Your task to perform on an android device: Go to Reddit.com Image 0: 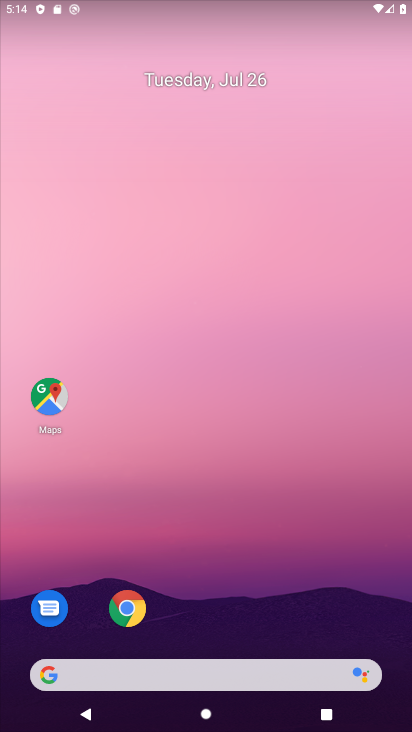
Step 0: press home button
Your task to perform on an android device: Go to Reddit.com Image 1: 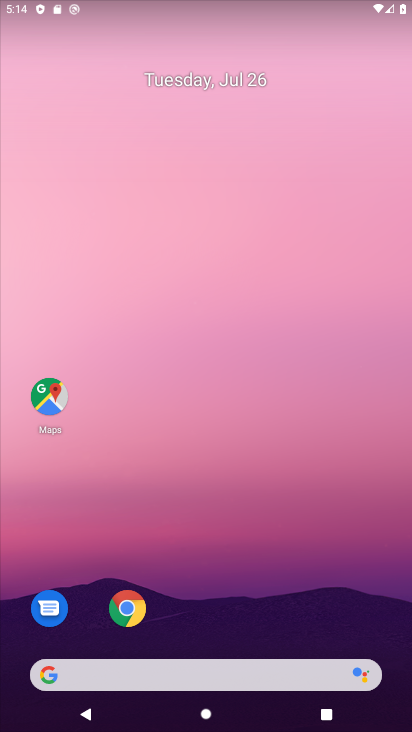
Step 1: click (43, 672)
Your task to perform on an android device: Go to Reddit.com Image 2: 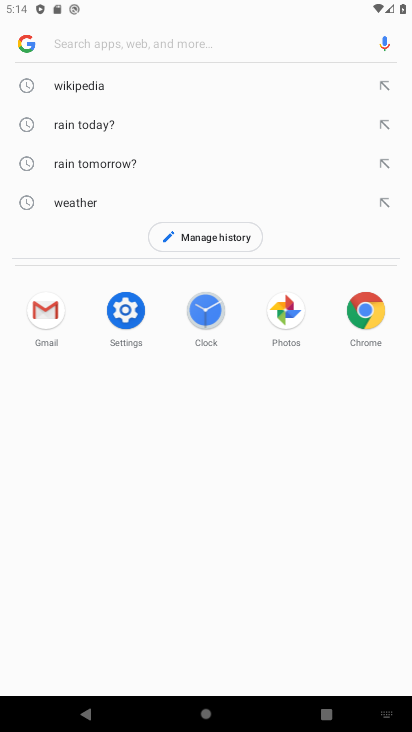
Step 2: type " Reddit.com"
Your task to perform on an android device: Go to Reddit.com Image 3: 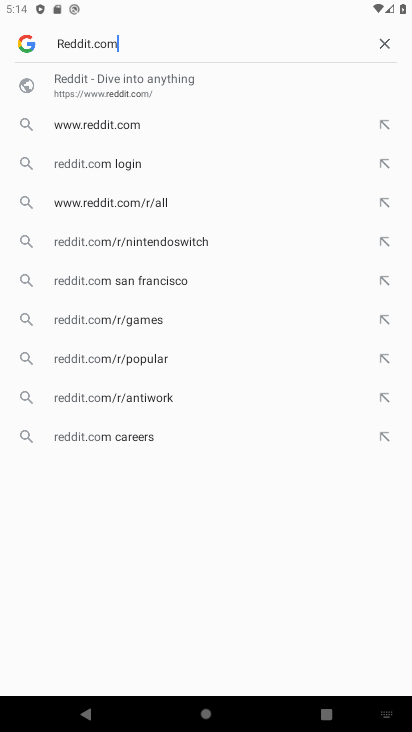
Step 3: press enter
Your task to perform on an android device: Go to Reddit.com Image 4: 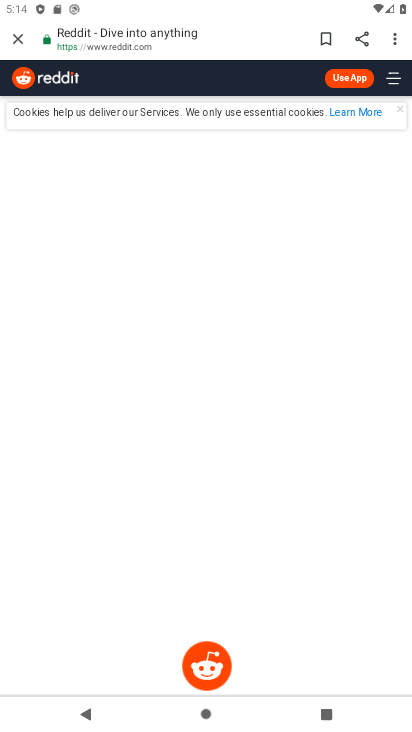
Step 4: task complete